Your task to perform on an android device: Open the web browser Image 0: 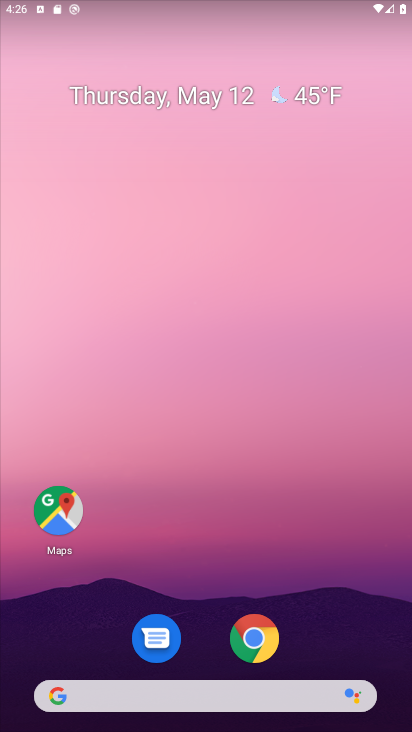
Step 0: click (272, 622)
Your task to perform on an android device: Open the web browser Image 1: 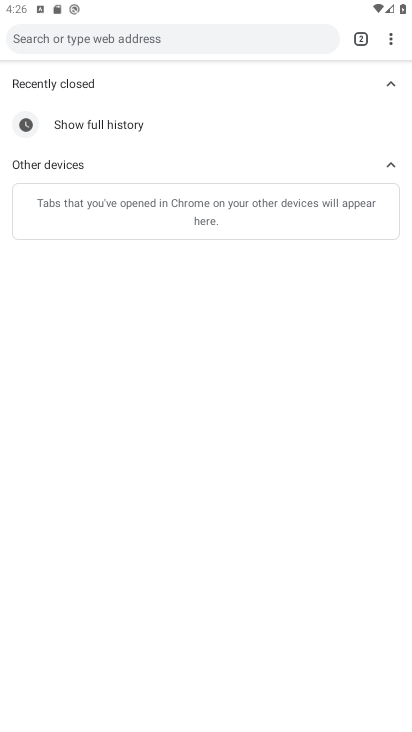
Step 1: task complete